Your task to perform on an android device: toggle wifi Image 0: 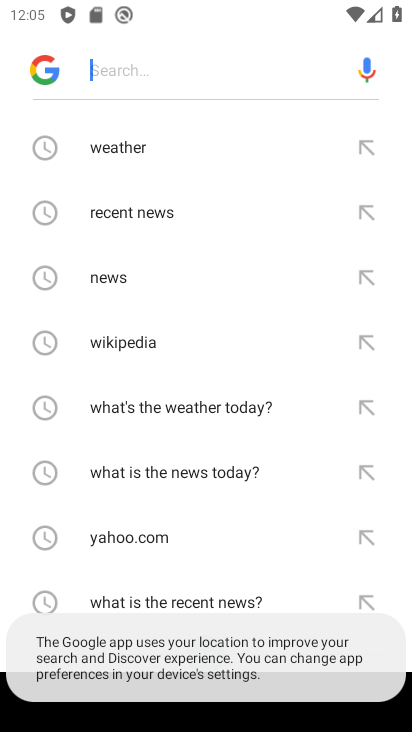
Step 0: press home button
Your task to perform on an android device: toggle wifi Image 1: 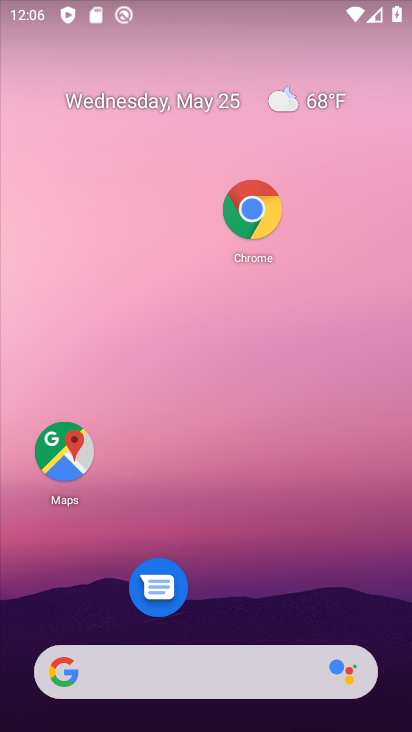
Step 1: drag from (241, 613) to (273, 30)
Your task to perform on an android device: toggle wifi Image 2: 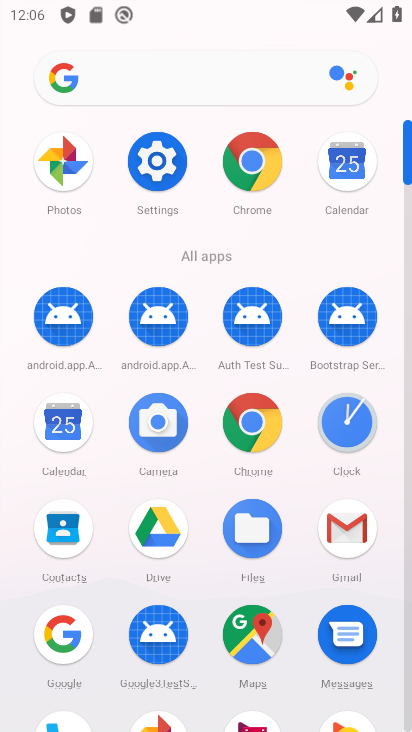
Step 2: click (155, 157)
Your task to perform on an android device: toggle wifi Image 3: 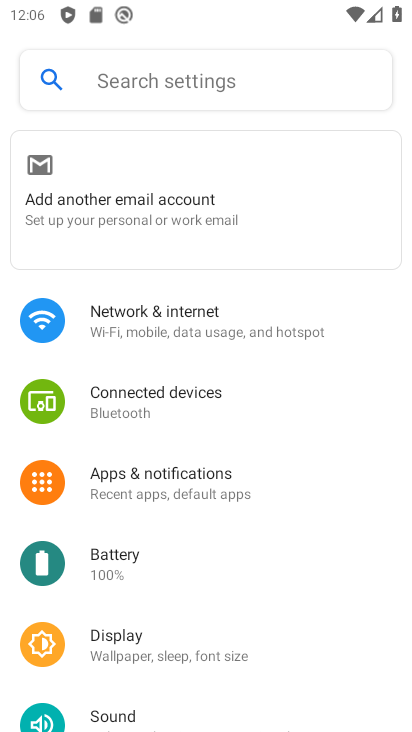
Step 3: click (188, 315)
Your task to perform on an android device: toggle wifi Image 4: 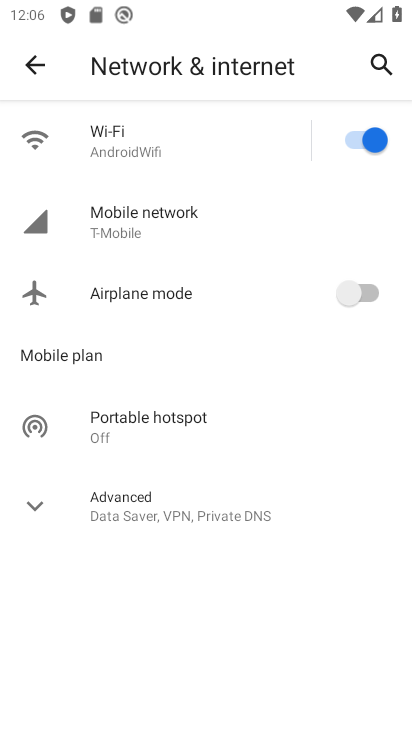
Step 4: click (168, 138)
Your task to perform on an android device: toggle wifi Image 5: 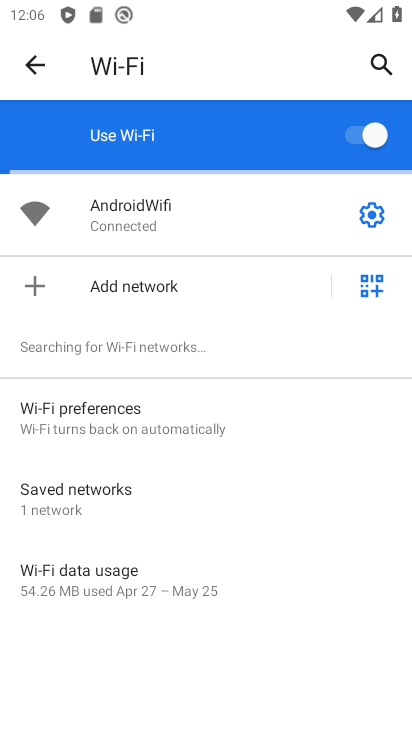
Step 5: click (360, 129)
Your task to perform on an android device: toggle wifi Image 6: 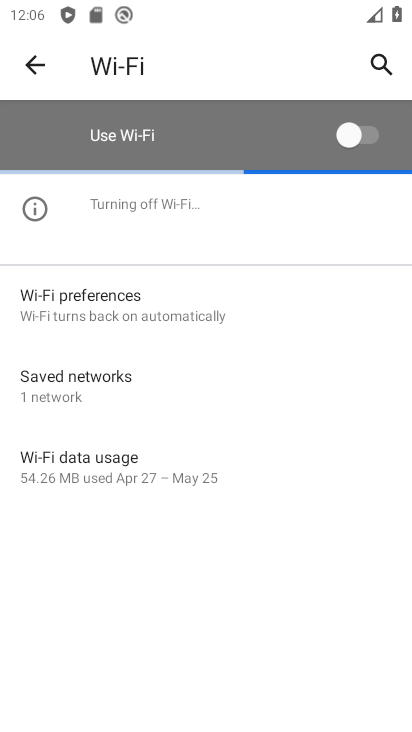
Step 6: task complete